Your task to perform on an android device: toggle notifications settings in the gmail app Image 0: 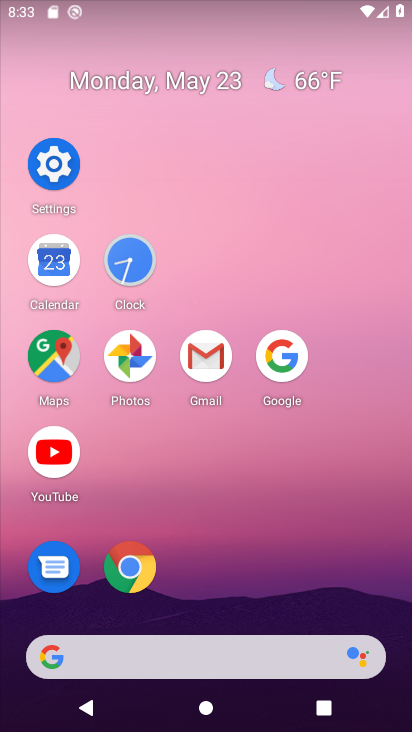
Step 0: click (199, 353)
Your task to perform on an android device: toggle notifications settings in the gmail app Image 1: 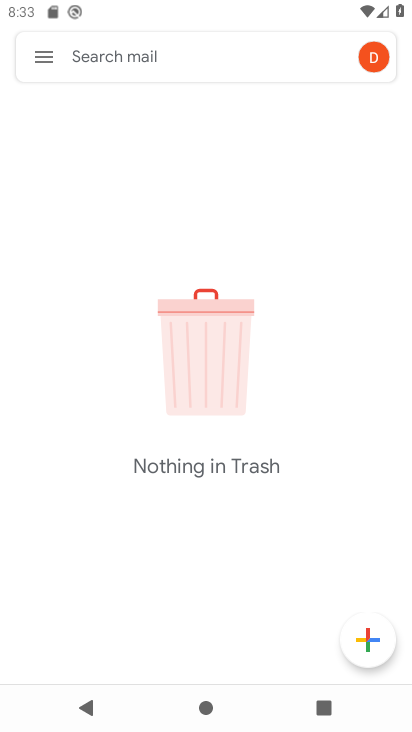
Step 1: click (36, 71)
Your task to perform on an android device: toggle notifications settings in the gmail app Image 2: 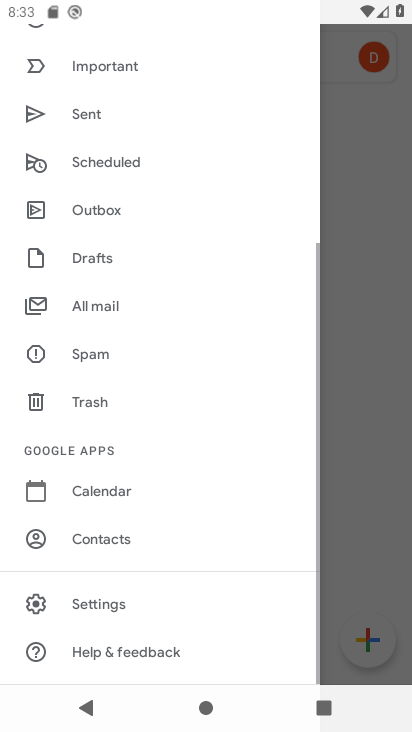
Step 2: drag from (198, 578) to (198, 194)
Your task to perform on an android device: toggle notifications settings in the gmail app Image 3: 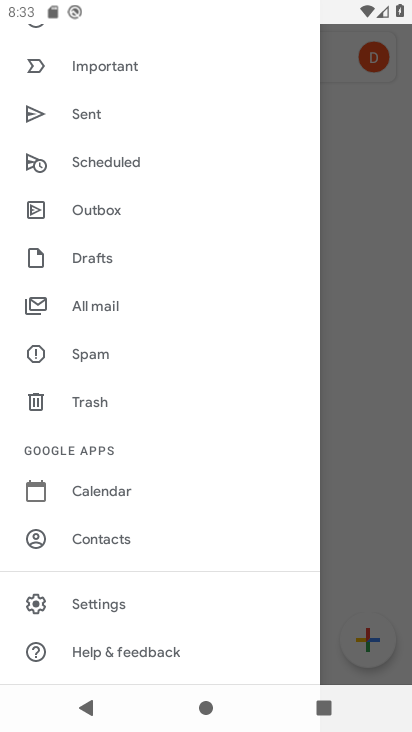
Step 3: click (144, 606)
Your task to perform on an android device: toggle notifications settings in the gmail app Image 4: 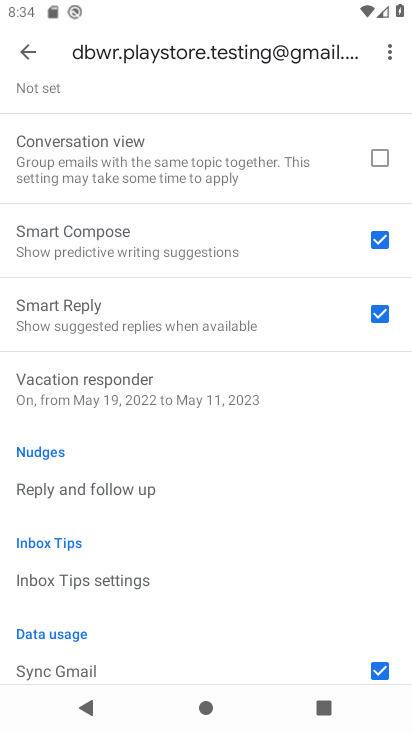
Step 4: drag from (144, 539) to (188, 198)
Your task to perform on an android device: toggle notifications settings in the gmail app Image 5: 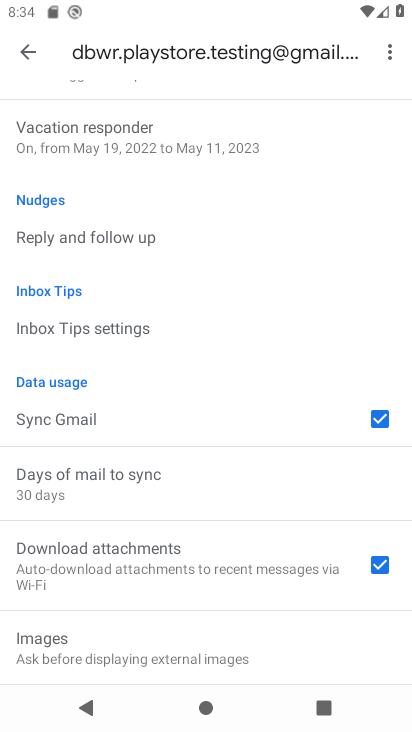
Step 5: drag from (149, 577) to (159, 250)
Your task to perform on an android device: toggle notifications settings in the gmail app Image 6: 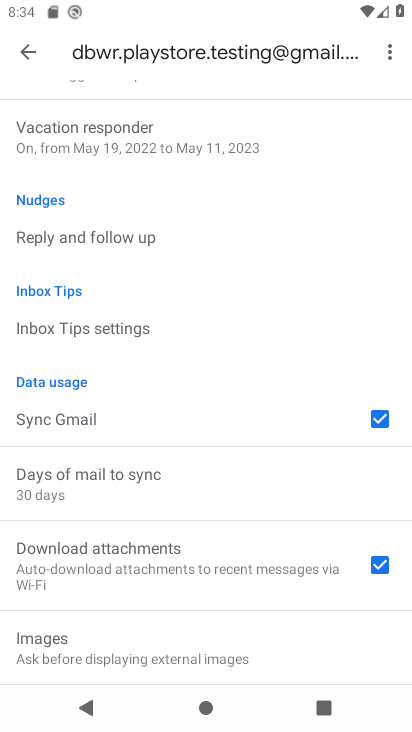
Step 6: drag from (220, 592) to (260, 113)
Your task to perform on an android device: toggle notifications settings in the gmail app Image 7: 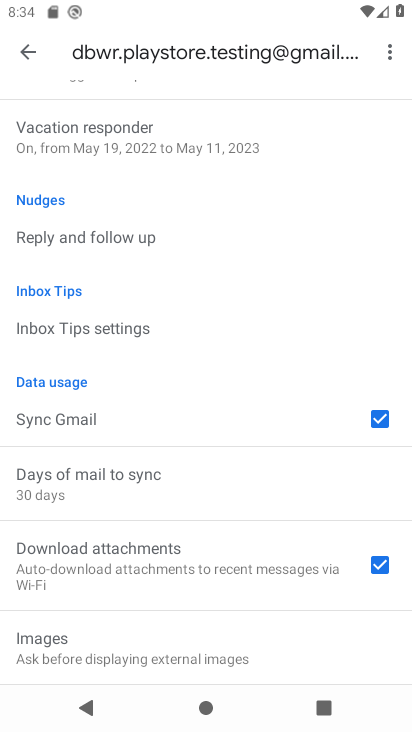
Step 7: drag from (234, 270) to (242, 512)
Your task to perform on an android device: toggle notifications settings in the gmail app Image 8: 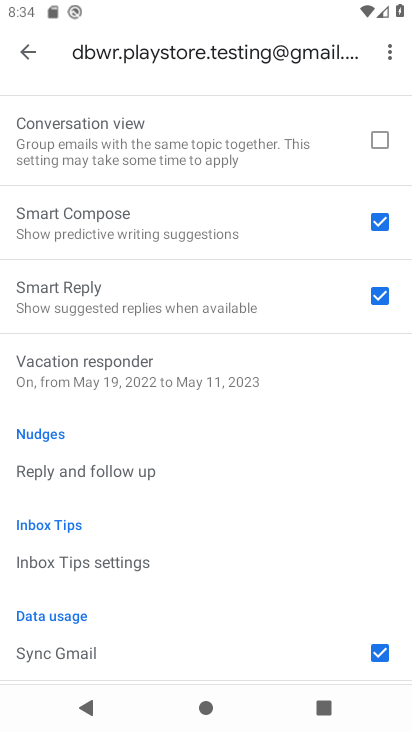
Step 8: drag from (232, 292) to (234, 681)
Your task to perform on an android device: toggle notifications settings in the gmail app Image 9: 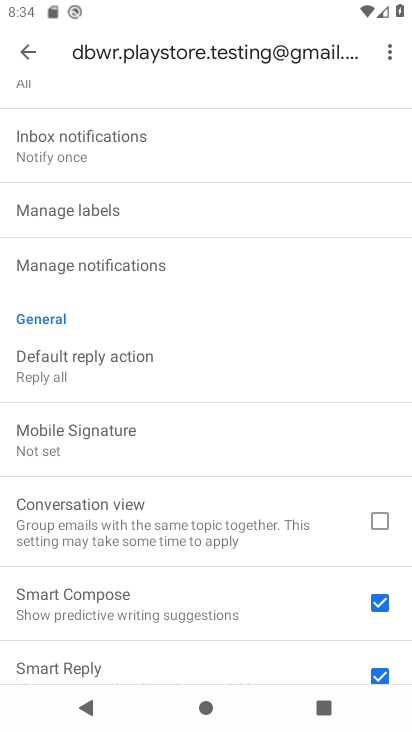
Step 9: drag from (187, 275) to (187, 420)
Your task to perform on an android device: toggle notifications settings in the gmail app Image 10: 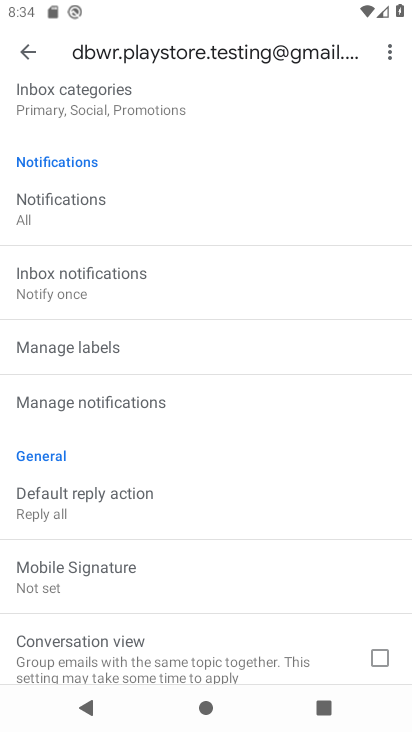
Step 10: click (168, 389)
Your task to perform on an android device: toggle notifications settings in the gmail app Image 11: 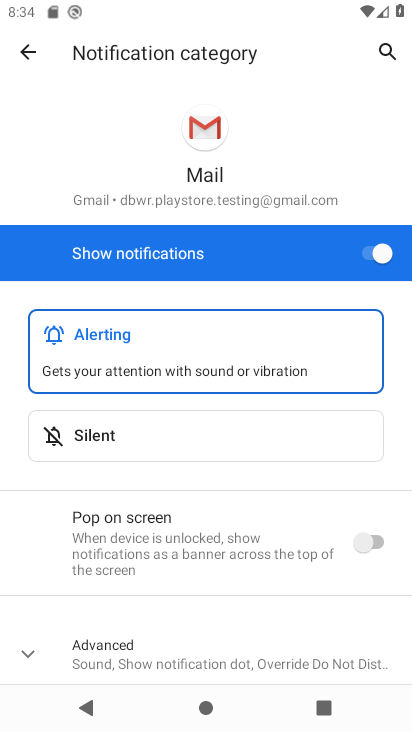
Step 11: click (385, 255)
Your task to perform on an android device: toggle notifications settings in the gmail app Image 12: 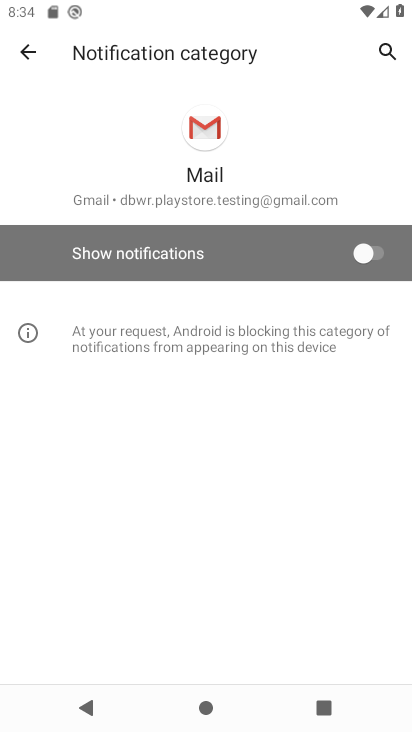
Step 12: task complete